Your task to perform on an android device: Open internet settings Image 0: 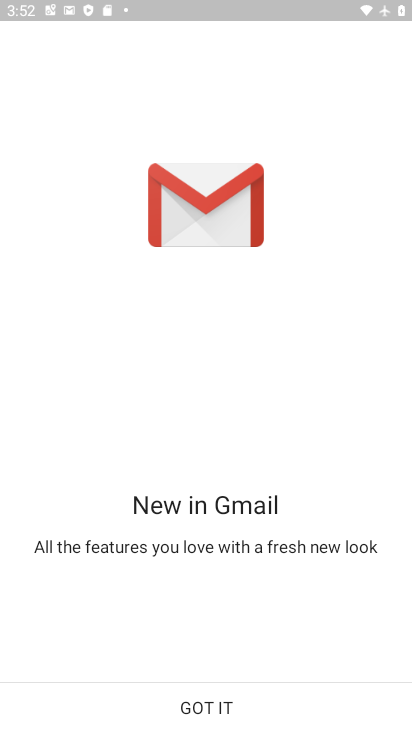
Step 0: click (201, 708)
Your task to perform on an android device: Open internet settings Image 1: 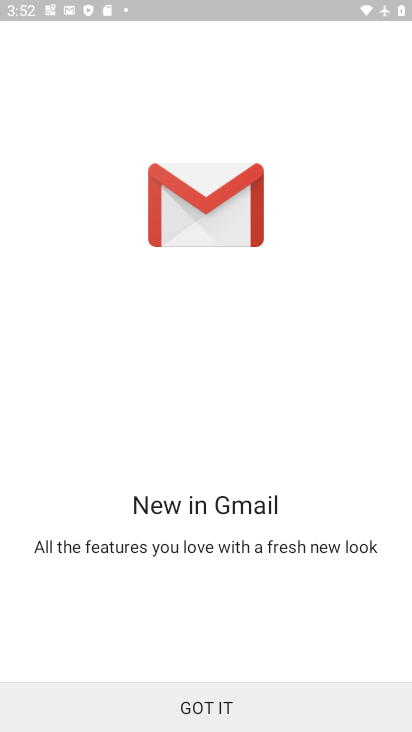
Step 1: click (197, 705)
Your task to perform on an android device: Open internet settings Image 2: 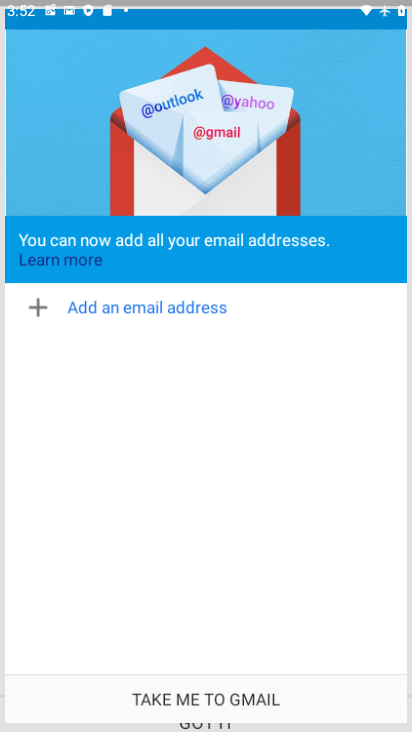
Step 2: click (197, 705)
Your task to perform on an android device: Open internet settings Image 3: 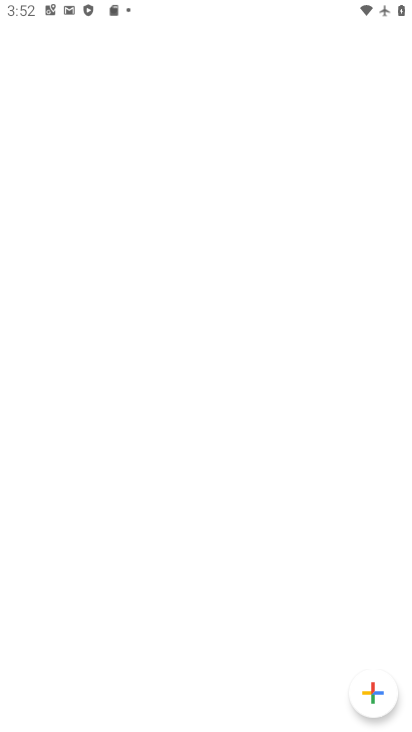
Step 3: click (236, 713)
Your task to perform on an android device: Open internet settings Image 4: 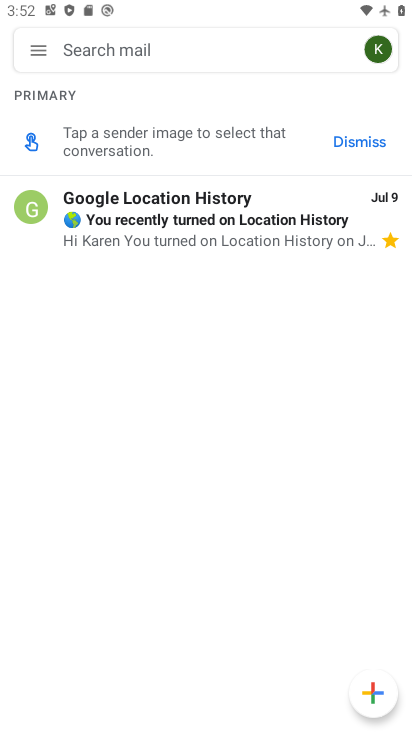
Step 4: press back button
Your task to perform on an android device: Open internet settings Image 5: 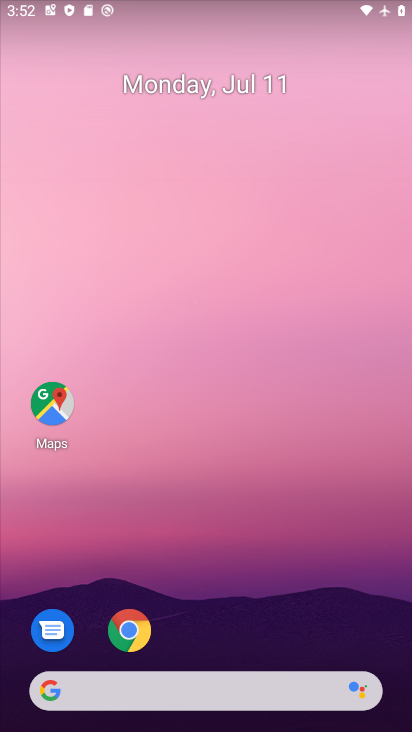
Step 5: drag from (229, 675) to (67, 86)
Your task to perform on an android device: Open internet settings Image 6: 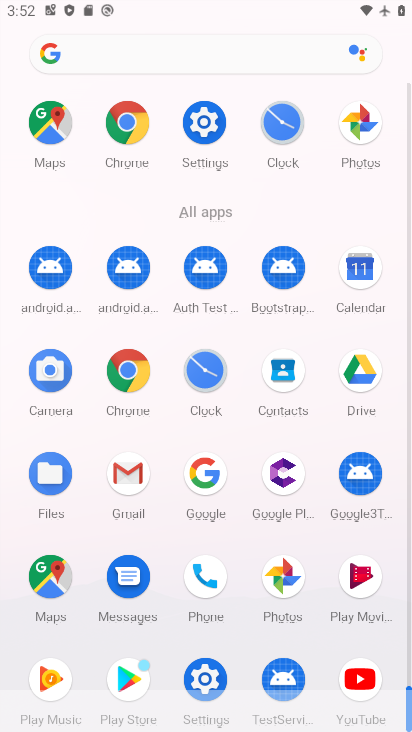
Step 6: click (191, 114)
Your task to perform on an android device: Open internet settings Image 7: 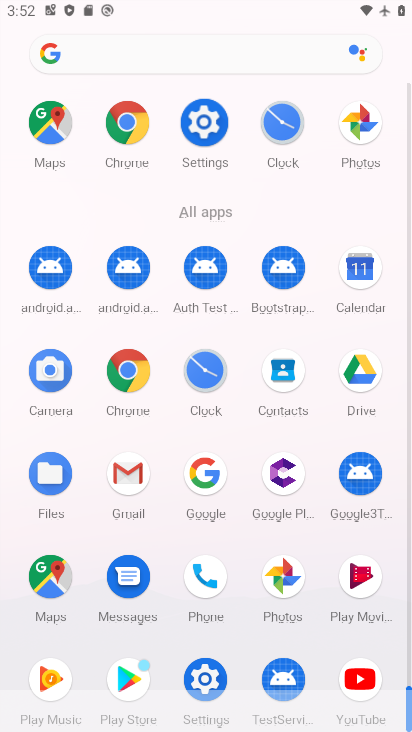
Step 7: click (198, 109)
Your task to perform on an android device: Open internet settings Image 8: 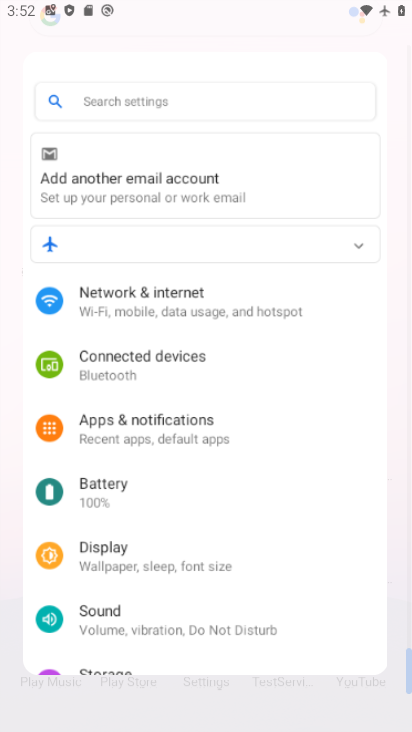
Step 8: click (198, 109)
Your task to perform on an android device: Open internet settings Image 9: 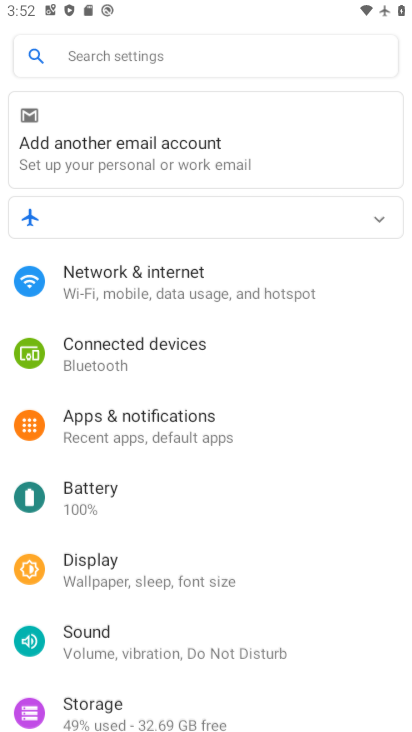
Step 9: click (199, 109)
Your task to perform on an android device: Open internet settings Image 10: 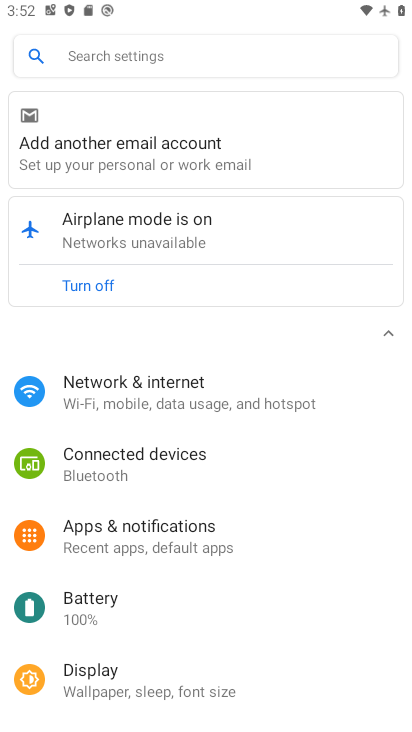
Step 10: drag from (99, 551) to (83, 305)
Your task to perform on an android device: Open internet settings Image 11: 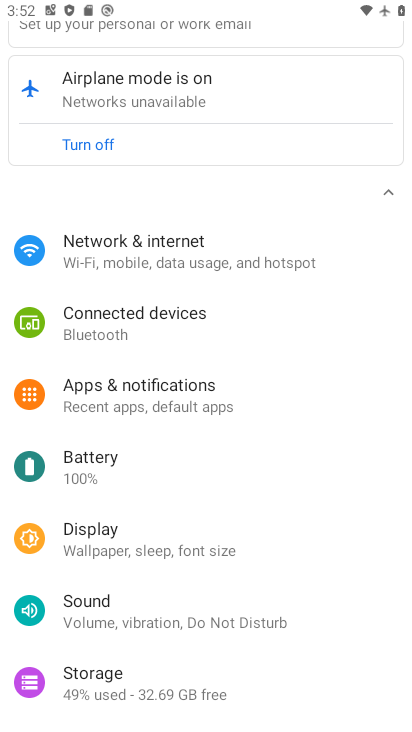
Step 11: drag from (146, 634) to (148, 300)
Your task to perform on an android device: Open internet settings Image 12: 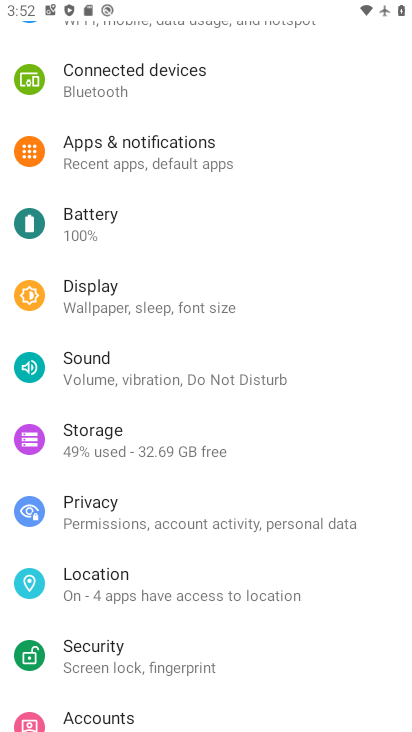
Step 12: drag from (112, 116) to (275, 635)
Your task to perform on an android device: Open internet settings Image 13: 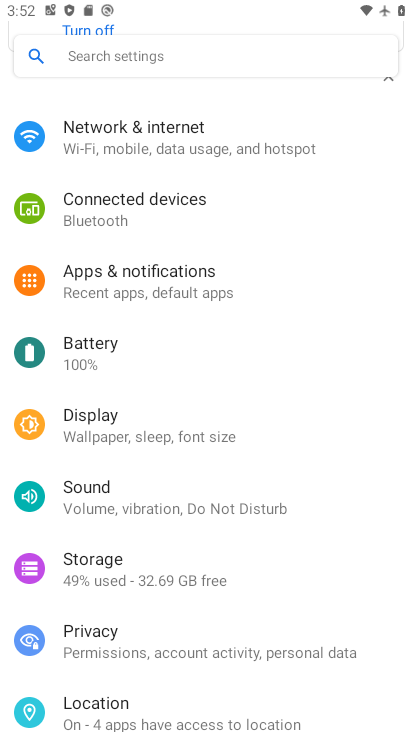
Step 13: click (180, 461)
Your task to perform on an android device: Open internet settings Image 14: 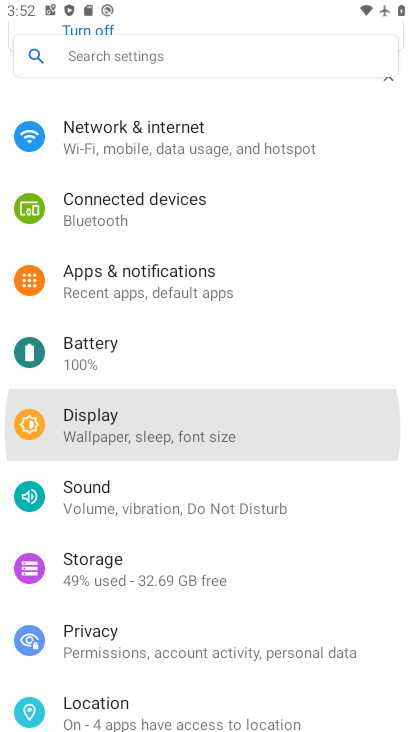
Step 14: drag from (190, 521) to (265, 624)
Your task to perform on an android device: Open internet settings Image 15: 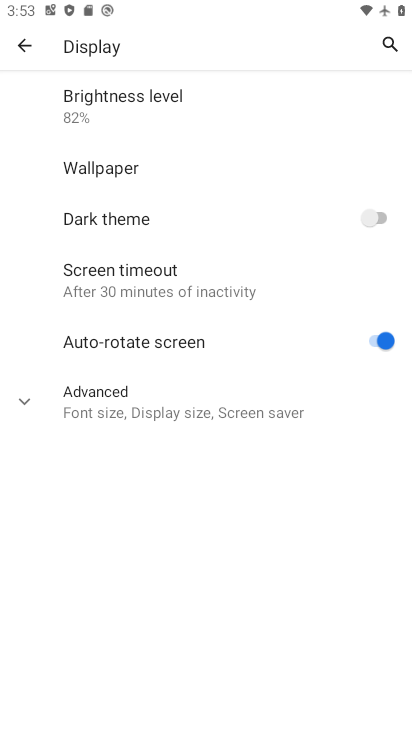
Step 15: click (162, 136)
Your task to perform on an android device: Open internet settings Image 16: 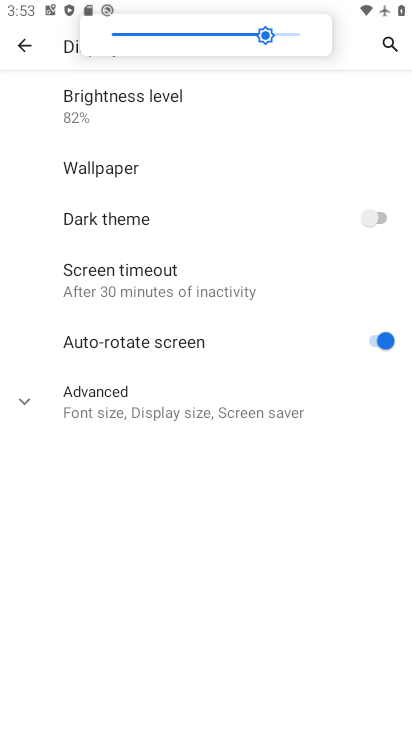
Step 16: click (28, 38)
Your task to perform on an android device: Open internet settings Image 17: 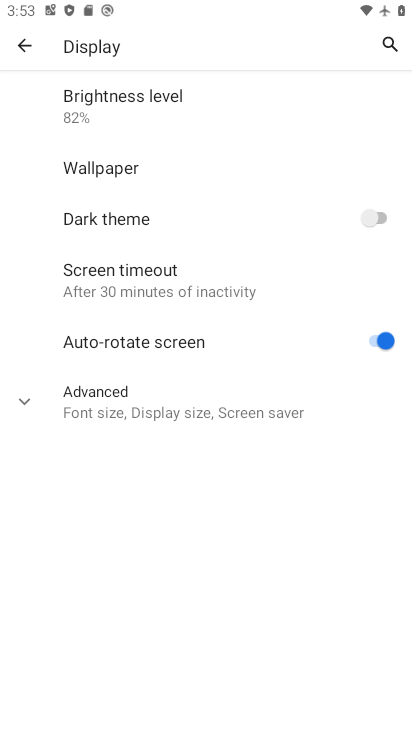
Step 17: click (33, 41)
Your task to perform on an android device: Open internet settings Image 18: 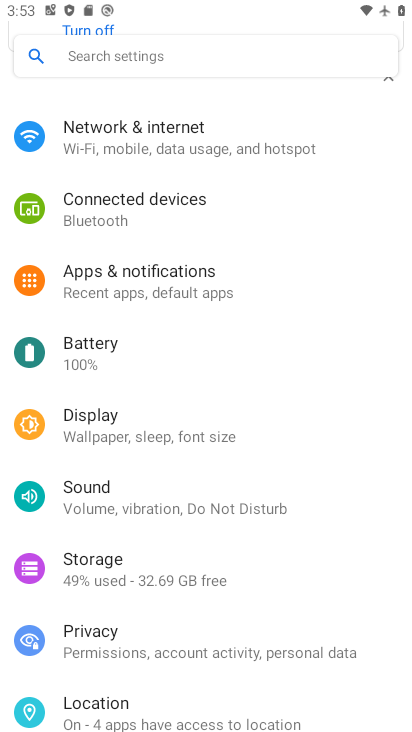
Step 18: drag from (140, 110) to (139, 376)
Your task to perform on an android device: Open internet settings Image 19: 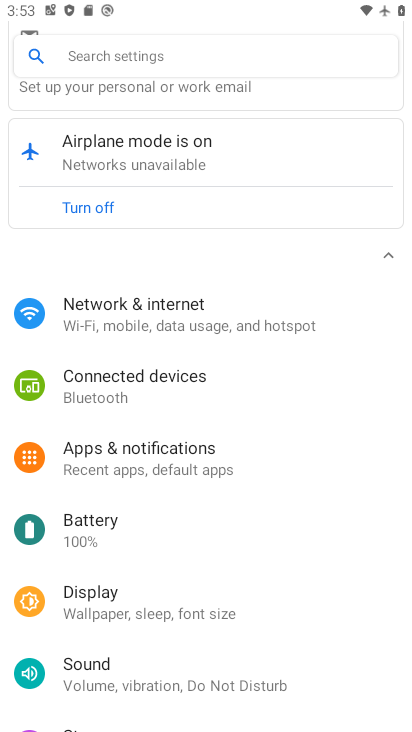
Step 19: click (162, 139)
Your task to perform on an android device: Open internet settings Image 20: 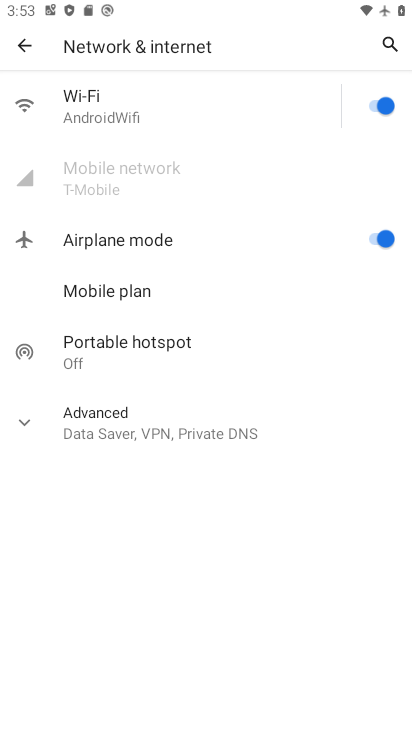
Step 20: click (27, 43)
Your task to perform on an android device: Open internet settings Image 21: 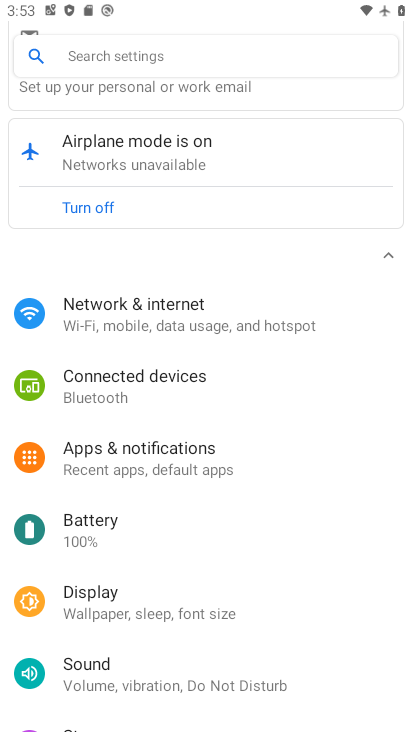
Step 21: click (176, 317)
Your task to perform on an android device: Open internet settings Image 22: 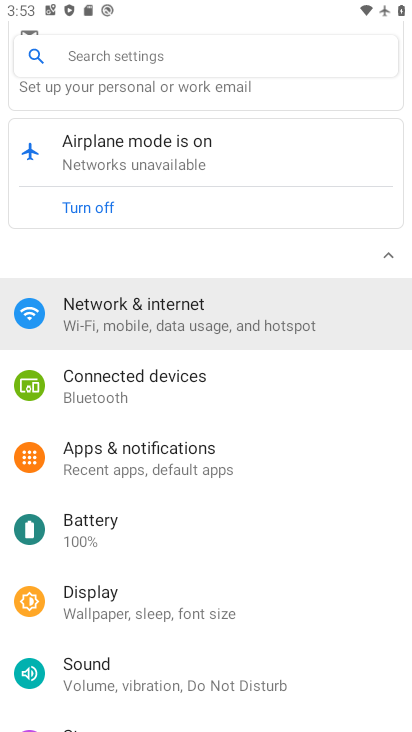
Step 22: click (176, 324)
Your task to perform on an android device: Open internet settings Image 23: 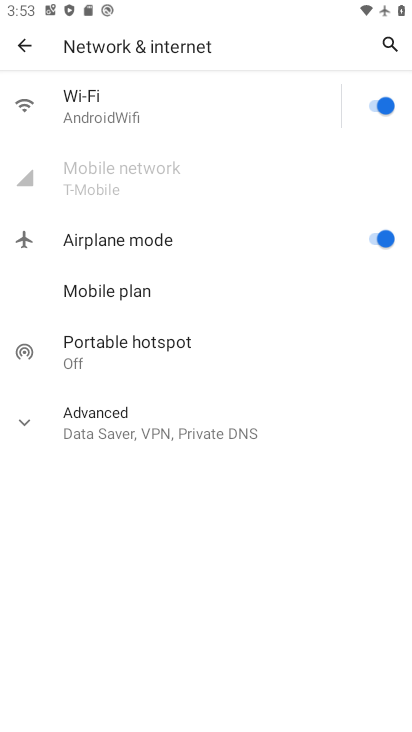
Step 23: task complete